Your task to perform on an android device: Go to CNN.com Image 0: 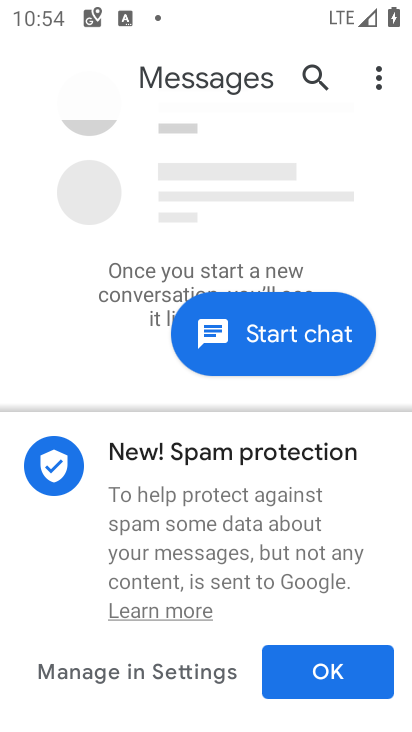
Step 0: press home button
Your task to perform on an android device: Go to CNN.com Image 1: 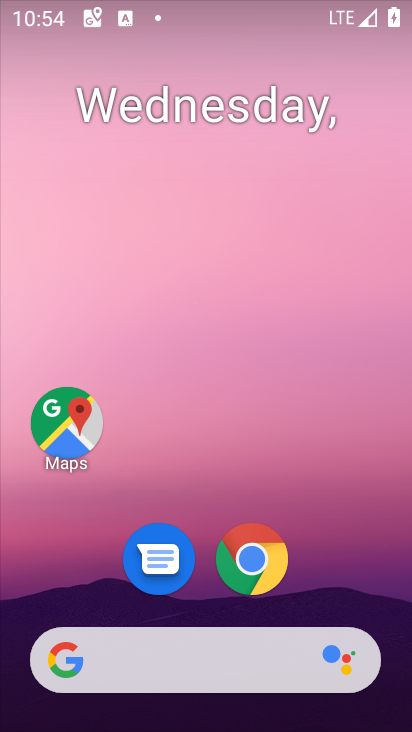
Step 1: drag from (162, 579) to (234, 92)
Your task to perform on an android device: Go to CNN.com Image 2: 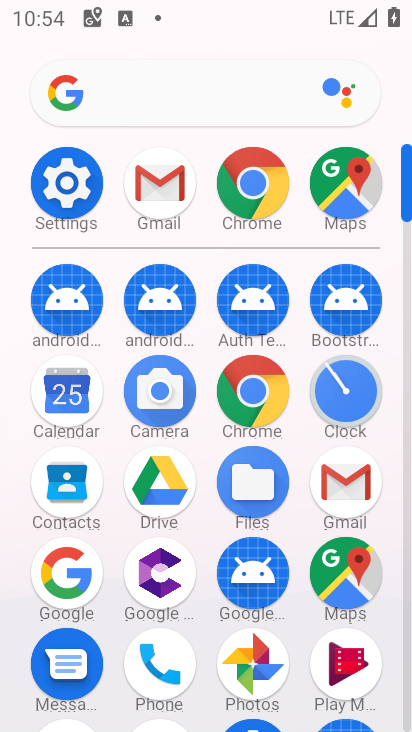
Step 2: click (265, 209)
Your task to perform on an android device: Go to CNN.com Image 3: 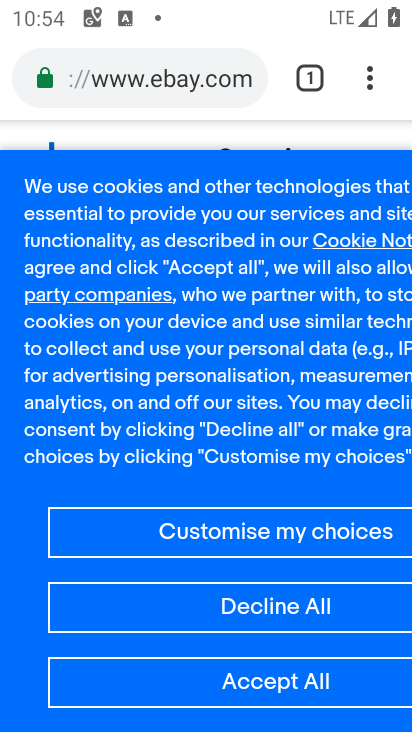
Step 3: click (221, 85)
Your task to perform on an android device: Go to CNN.com Image 4: 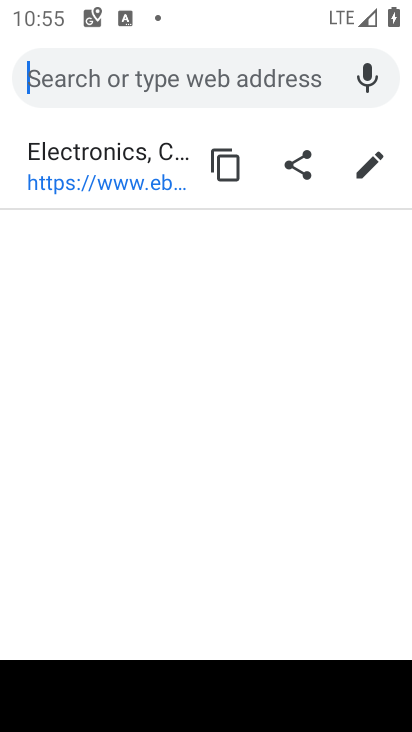
Step 4: type "cnn"
Your task to perform on an android device: Go to CNN.com Image 5: 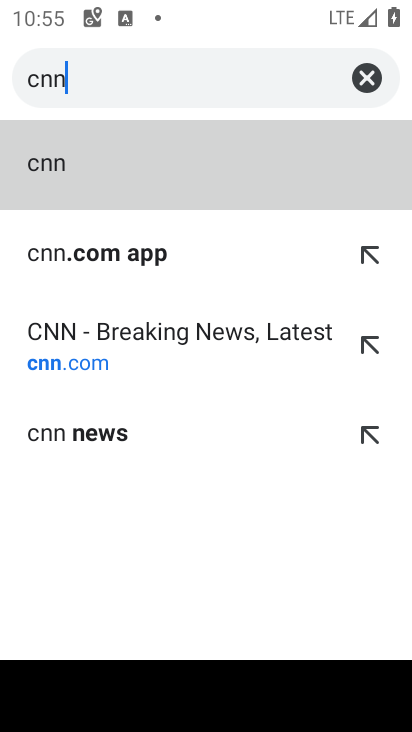
Step 5: click (246, 365)
Your task to perform on an android device: Go to CNN.com Image 6: 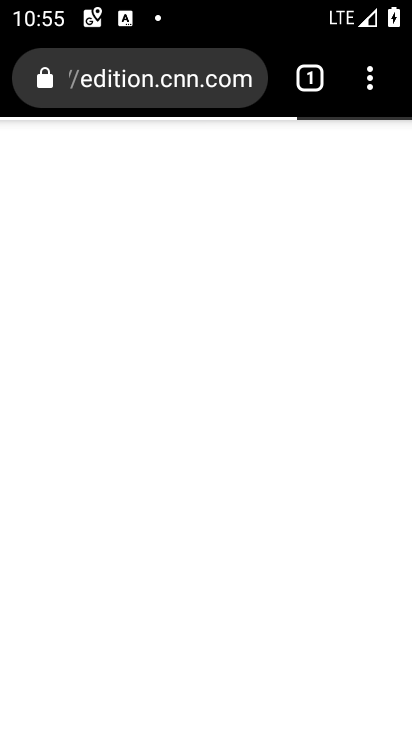
Step 6: task complete